Your task to perform on an android device: Open Google Image 0: 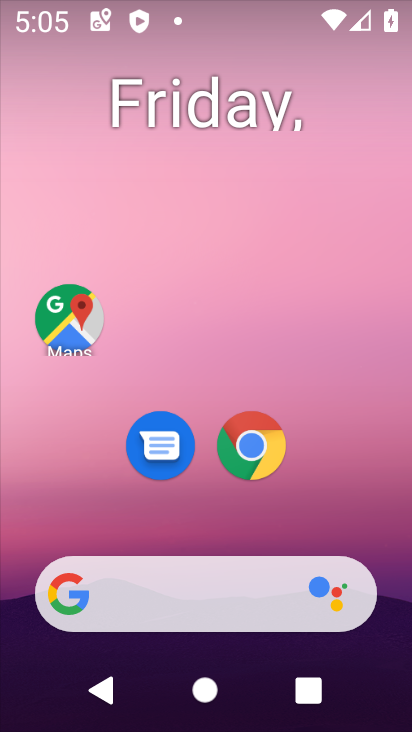
Step 0: click (260, 447)
Your task to perform on an android device: Open Google Image 1: 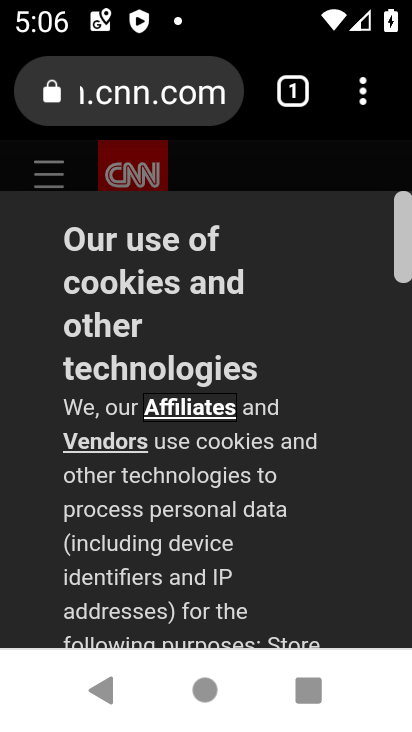
Step 1: click (174, 89)
Your task to perform on an android device: Open Google Image 2: 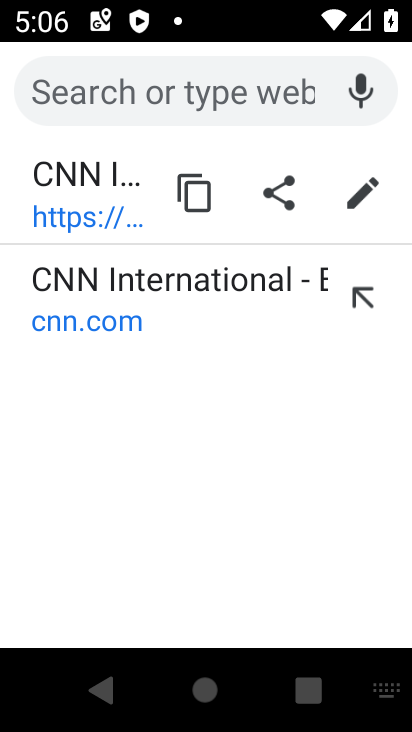
Step 2: type "google.com"
Your task to perform on an android device: Open Google Image 3: 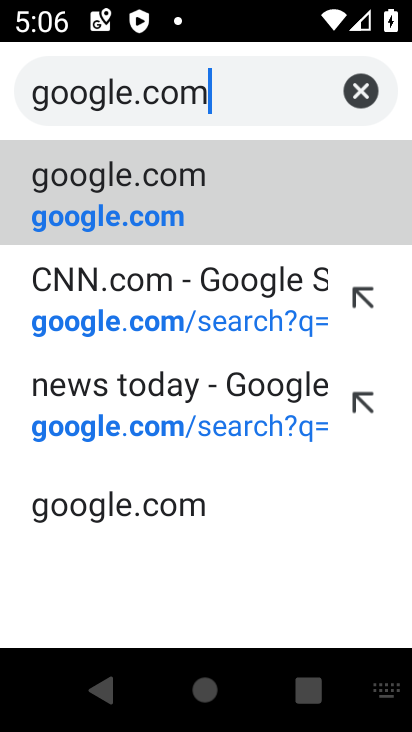
Step 3: click (152, 183)
Your task to perform on an android device: Open Google Image 4: 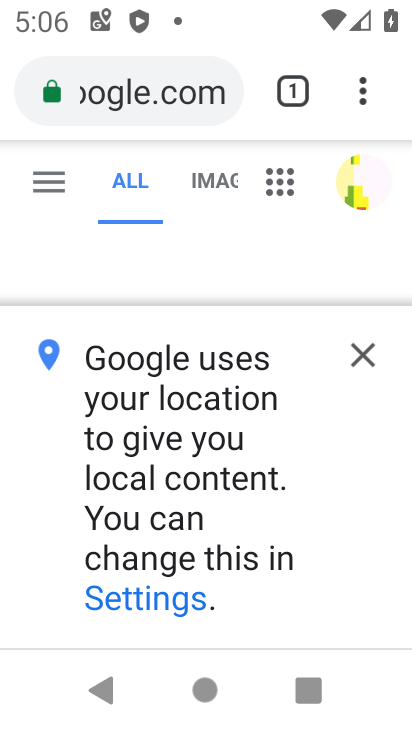
Step 4: task complete